Your task to perform on an android device: Open eBay Image 0: 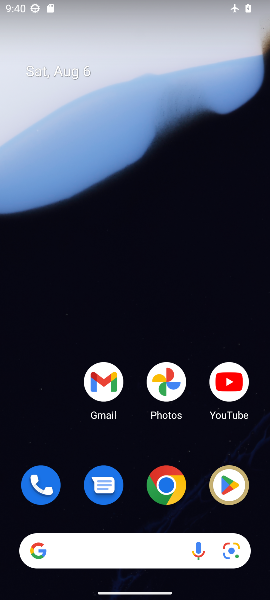
Step 0: drag from (195, 439) to (181, 1)
Your task to perform on an android device: Open eBay Image 1: 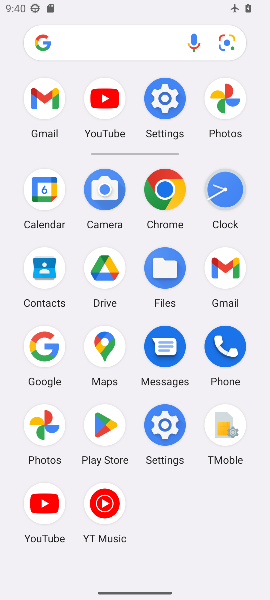
Step 1: click (167, 192)
Your task to perform on an android device: Open eBay Image 2: 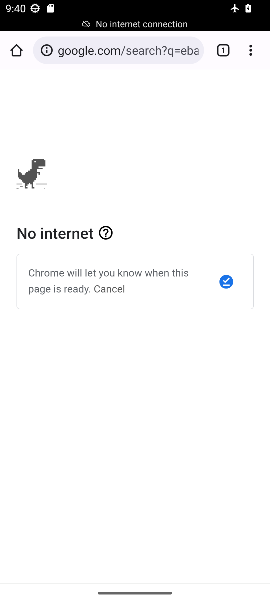
Step 2: click (138, 57)
Your task to perform on an android device: Open eBay Image 3: 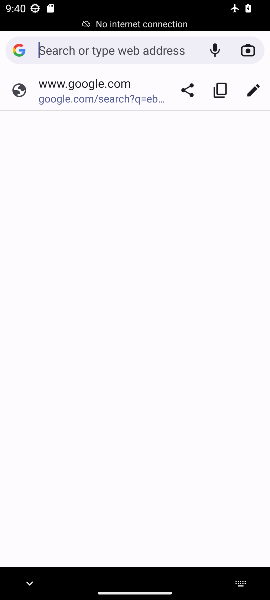
Step 3: type "ebay"
Your task to perform on an android device: Open eBay Image 4: 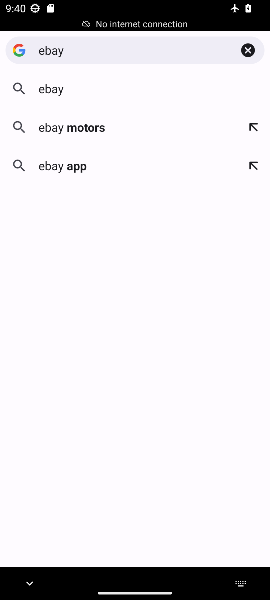
Step 4: click (87, 80)
Your task to perform on an android device: Open eBay Image 5: 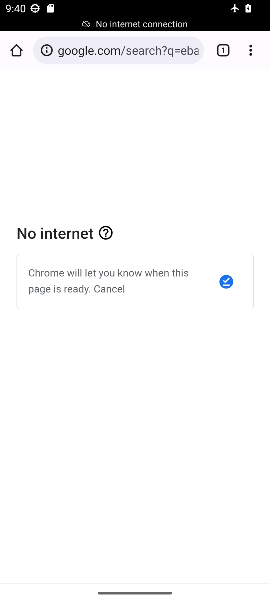
Step 5: task complete